Your task to perform on an android device: Go to settings Image 0: 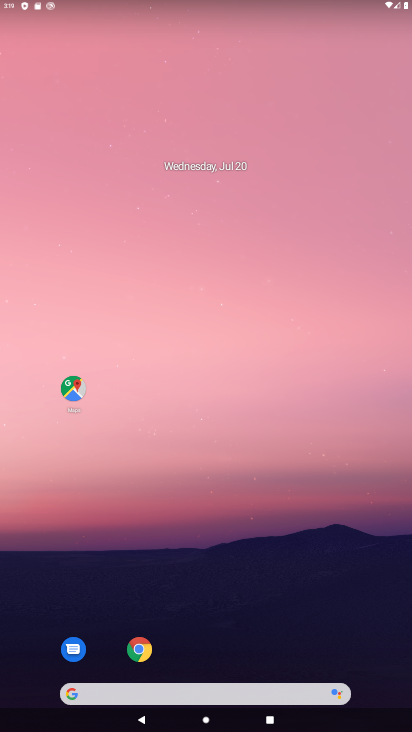
Step 0: drag from (198, 679) to (254, 310)
Your task to perform on an android device: Go to settings Image 1: 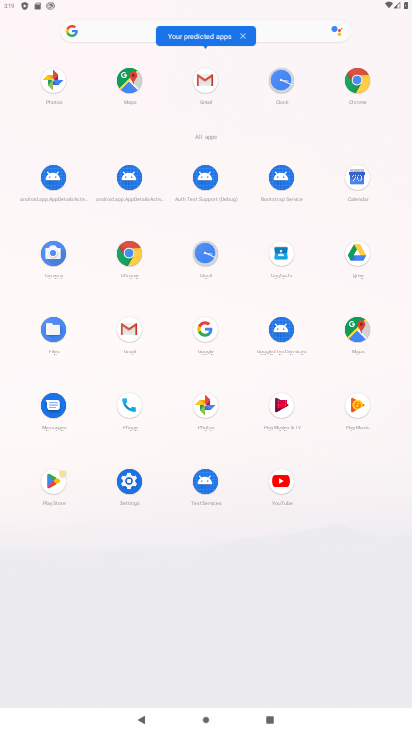
Step 1: click (121, 487)
Your task to perform on an android device: Go to settings Image 2: 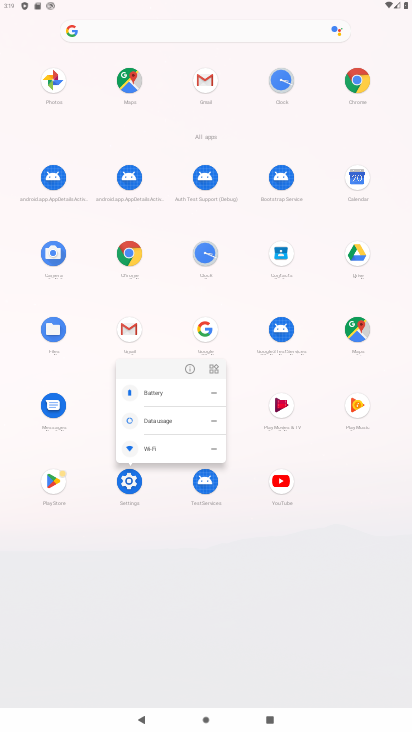
Step 2: click (121, 476)
Your task to perform on an android device: Go to settings Image 3: 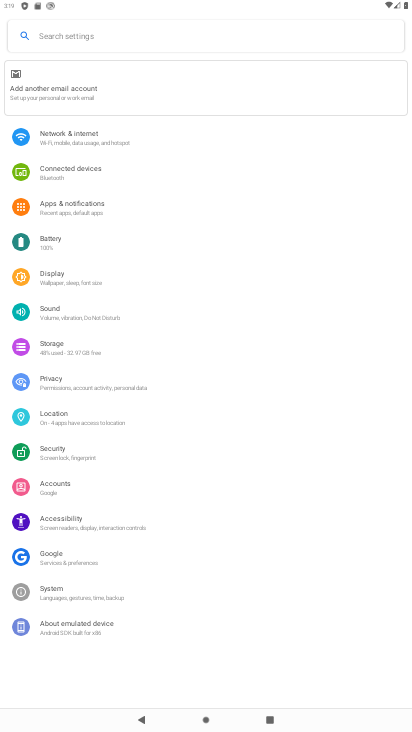
Step 3: task complete